Your task to perform on an android device: Go to Android settings Image 0: 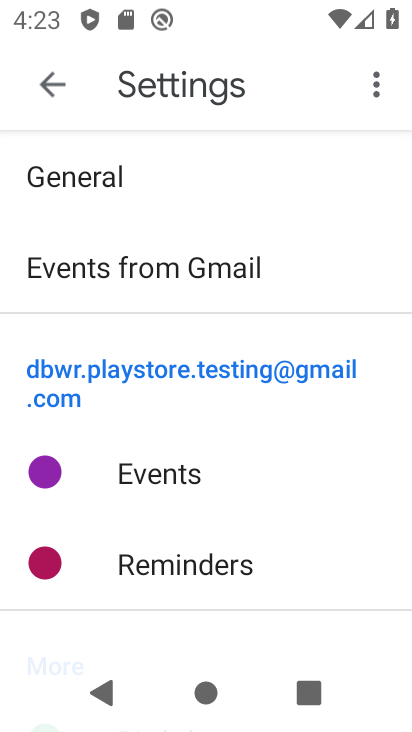
Step 0: press home button
Your task to perform on an android device: Go to Android settings Image 1: 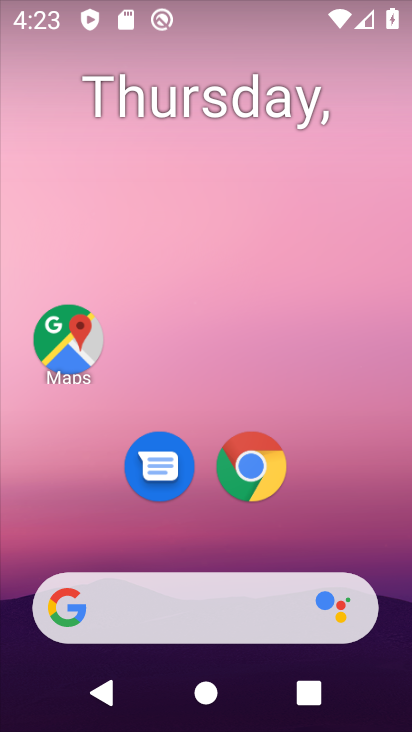
Step 1: drag from (203, 547) to (198, 0)
Your task to perform on an android device: Go to Android settings Image 2: 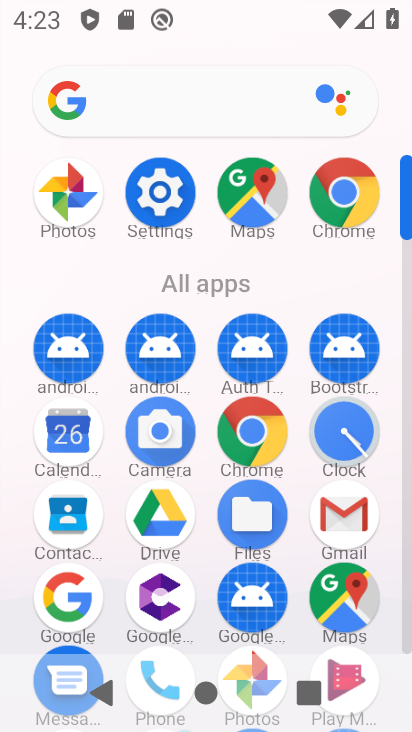
Step 2: click (158, 184)
Your task to perform on an android device: Go to Android settings Image 3: 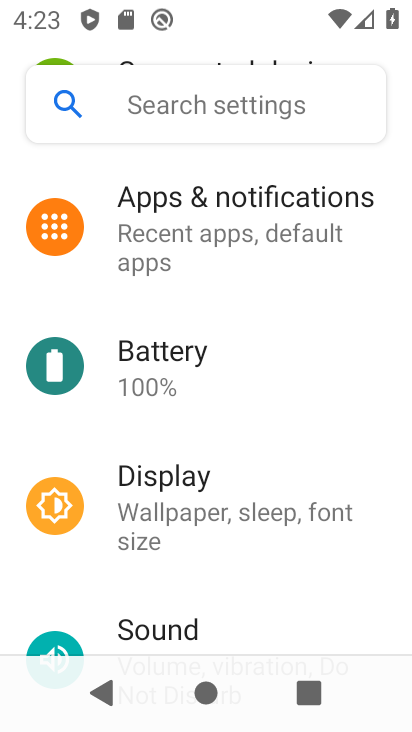
Step 3: drag from (217, 622) to (246, 104)
Your task to perform on an android device: Go to Android settings Image 4: 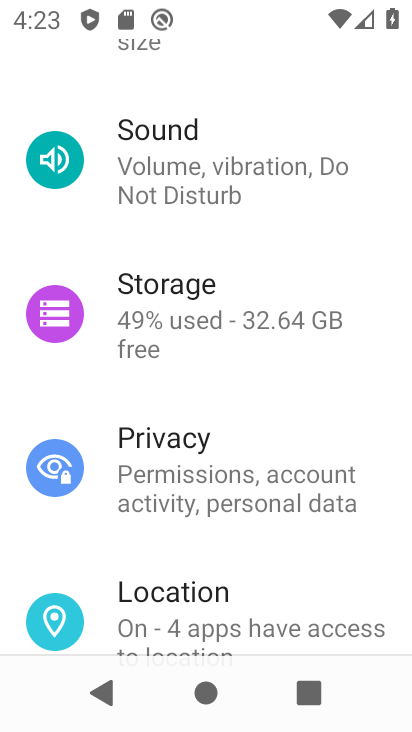
Step 4: drag from (258, 601) to (272, 33)
Your task to perform on an android device: Go to Android settings Image 5: 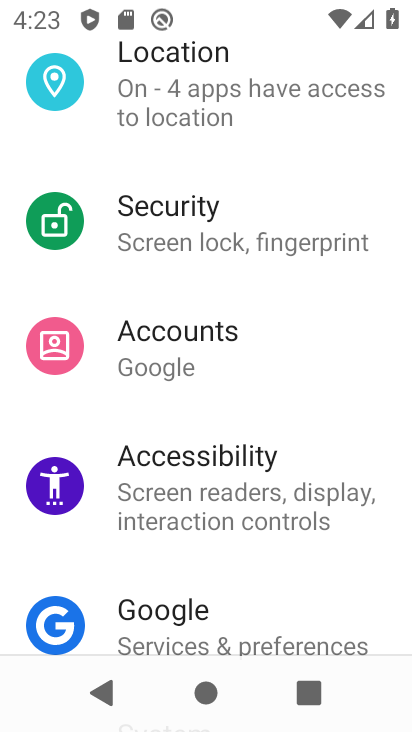
Step 5: drag from (242, 630) to (271, 0)
Your task to perform on an android device: Go to Android settings Image 6: 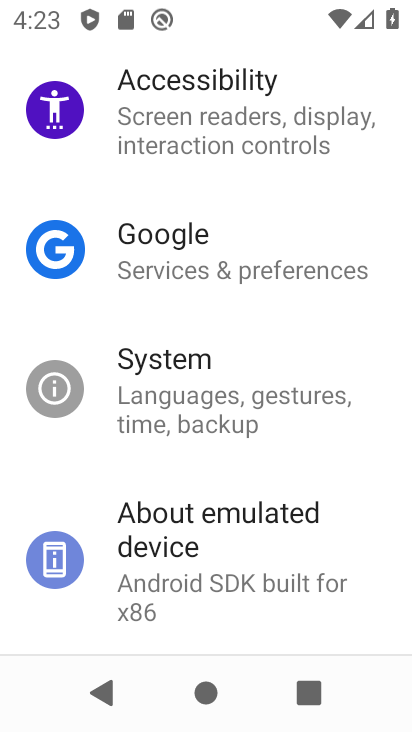
Step 6: click (216, 536)
Your task to perform on an android device: Go to Android settings Image 7: 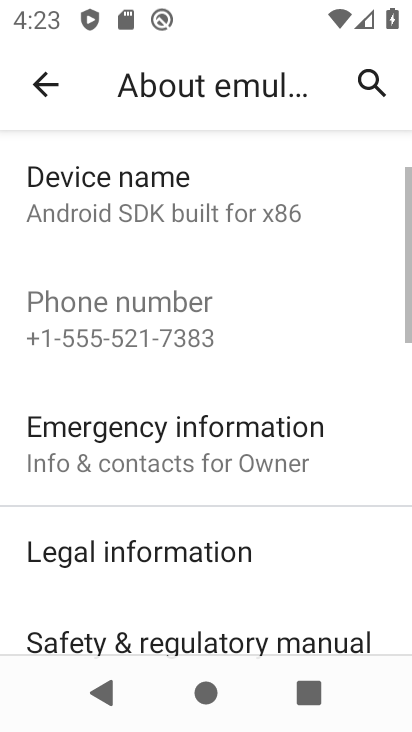
Step 7: drag from (224, 602) to (246, 113)
Your task to perform on an android device: Go to Android settings Image 8: 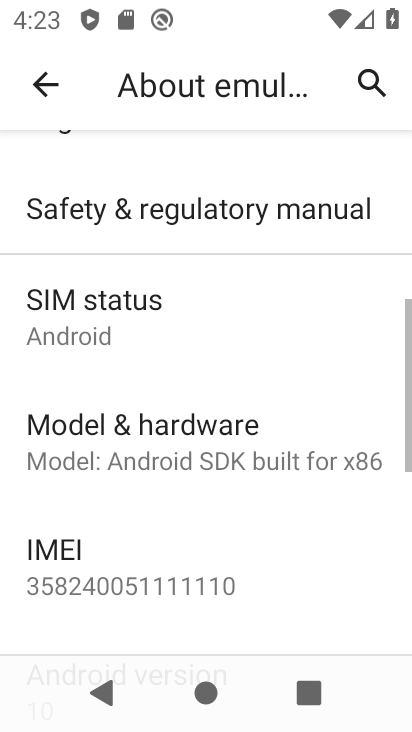
Step 8: drag from (202, 618) to (265, 185)
Your task to perform on an android device: Go to Android settings Image 9: 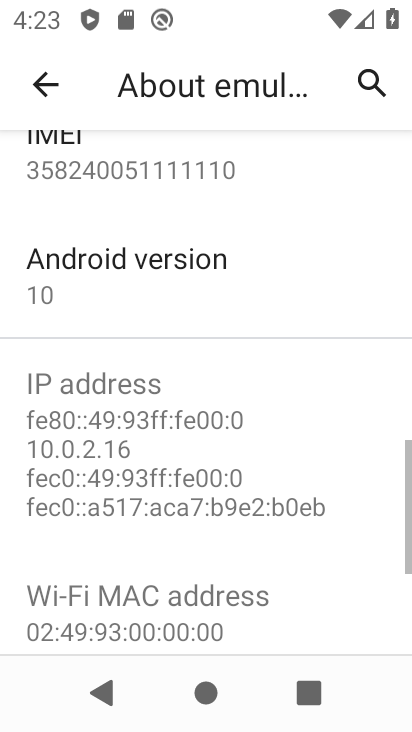
Step 9: click (148, 290)
Your task to perform on an android device: Go to Android settings Image 10: 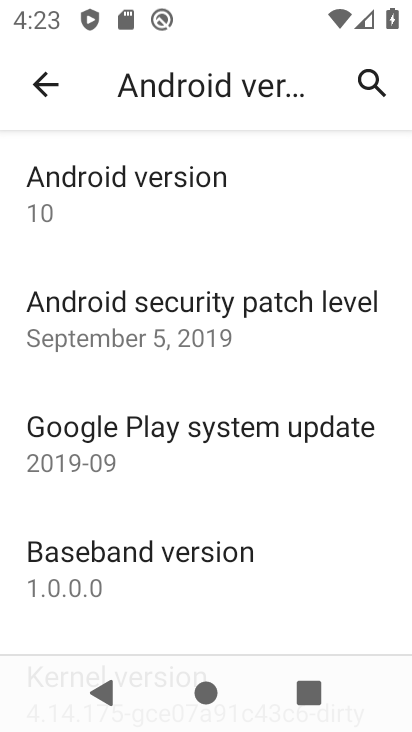
Step 10: task complete